Your task to perform on an android device: move an email to a new category in the gmail app Image 0: 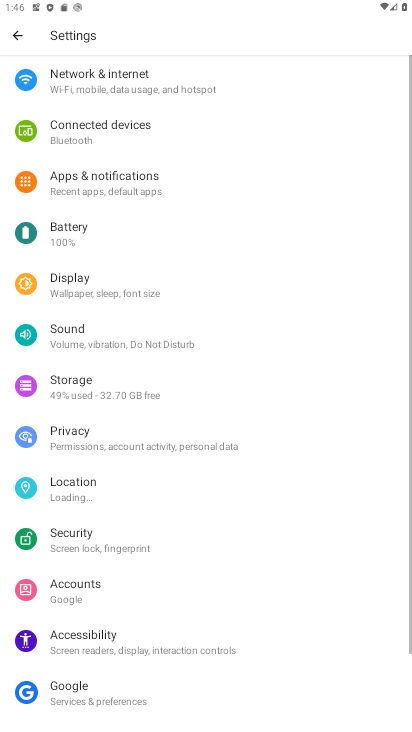
Step 0: press home button
Your task to perform on an android device: move an email to a new category in the gmail app Image 1: 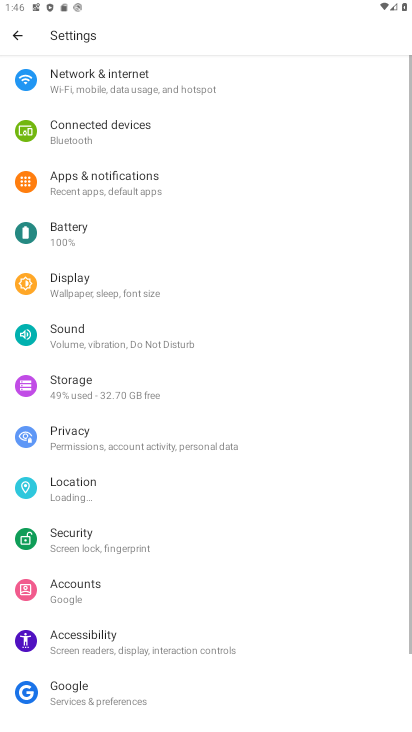
Step 1: press home button
Your task to perform on an android device: move an email to a new category in the gmail app Image 2: 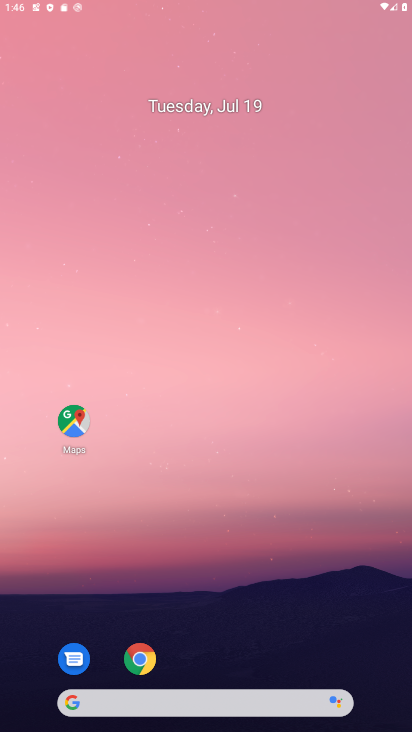
Step 2: press home button
Your task to perform on an android device: move an email to a new category in the gmail app Image 3: 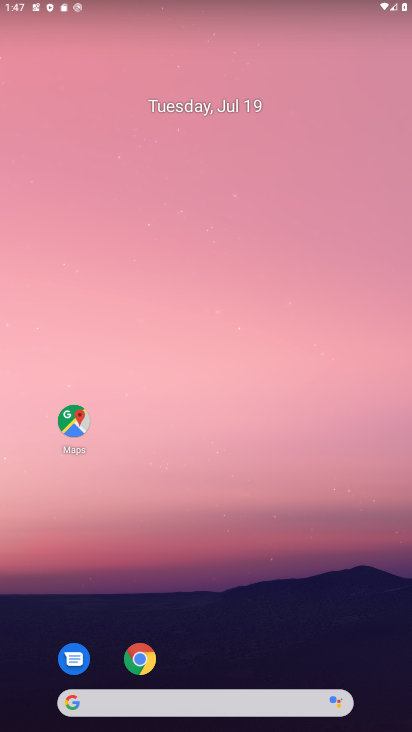
Step 3: drag from (239, 664) to (288, 3)
Your task to perform on an android device: move an email to a new category in the gmail app Image 4: 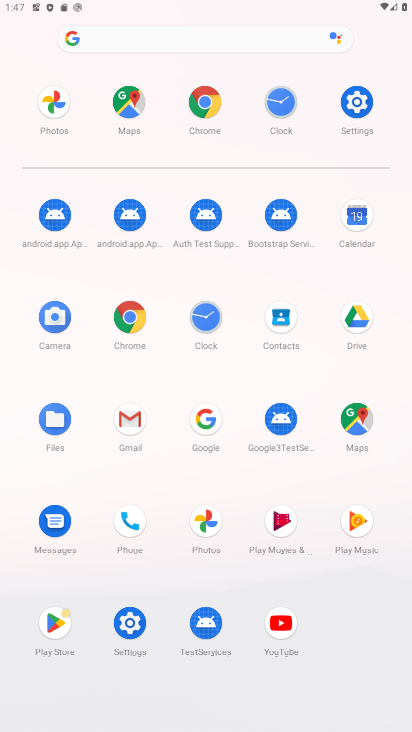
Step 4: click (124, 428)
Your task to perform on an android device: move an email to a new category in the gmail app Image 5: 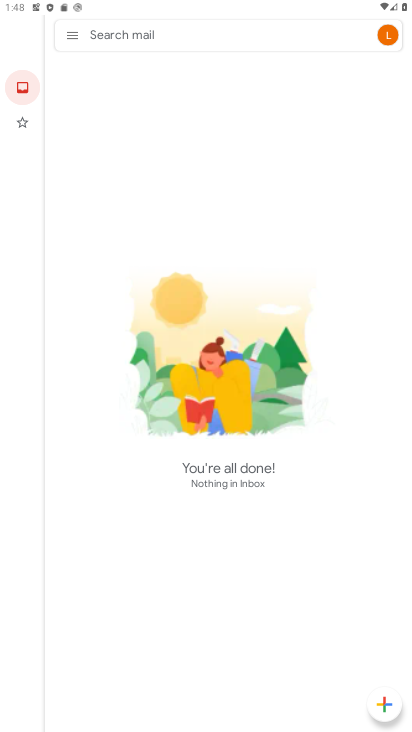
Step 5: task complete